Your task to perform on an android device: Open battery settings Image 0: 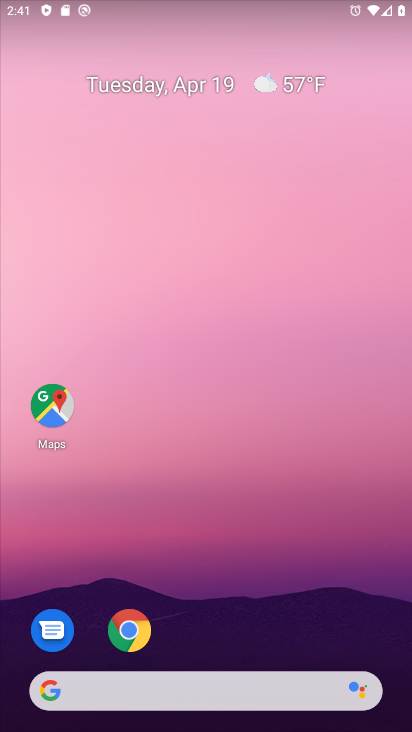
Step 0: drag from (217, 598) to (204, 1)
Your task to perform on an android device: Open battery settings Image 1: 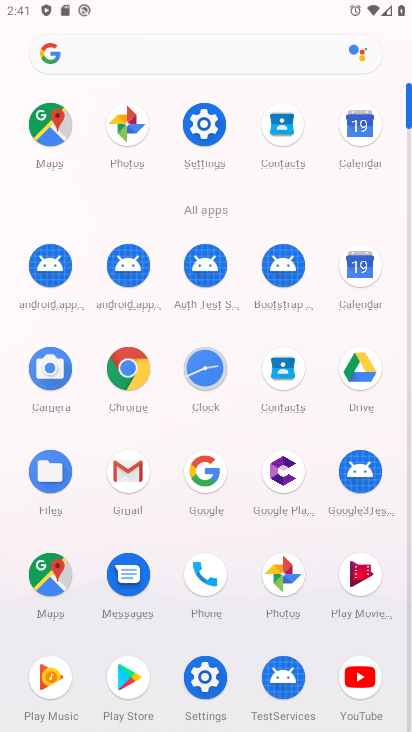
Step 1: click (207, 120)
Your task to perform on an android device: Open battery settings Image 2: 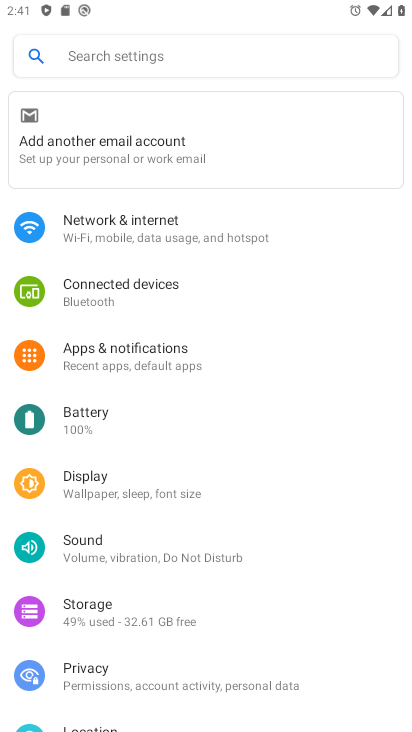
Step 2: click (86, 415)
Your task to perform on an android device: Open battery settings Image 3: 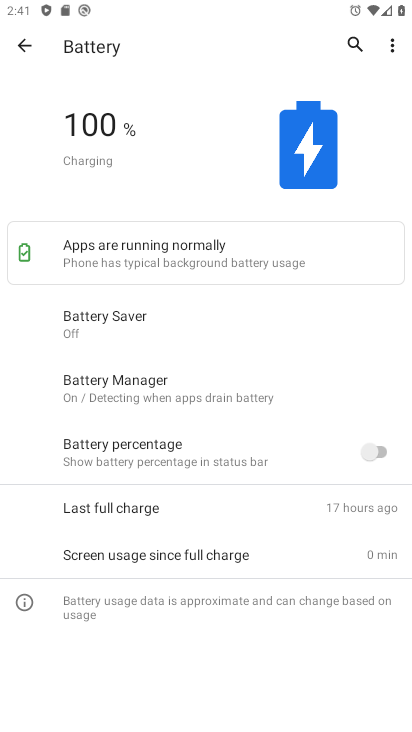
Step 3: task complete